Your task to perform on an android device: Open maps Image 0: 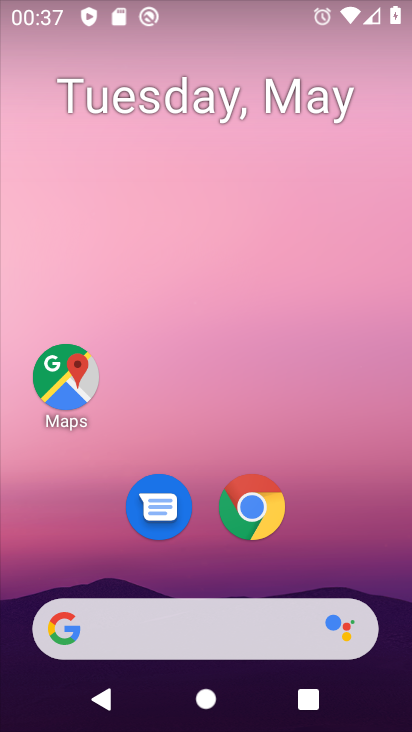
Step 0: drag from (216, 600) to (375, 15)
Your task to perform on an android device: Open maps Image 1: 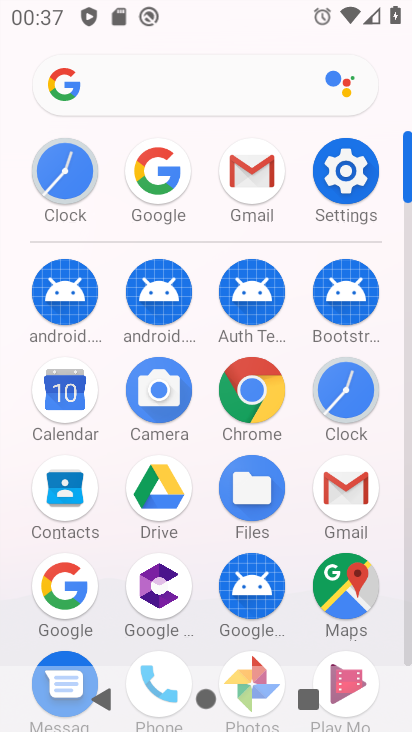
Step 1: click (352, 591)
Your task to perform on an android device: Open maps Image 2: 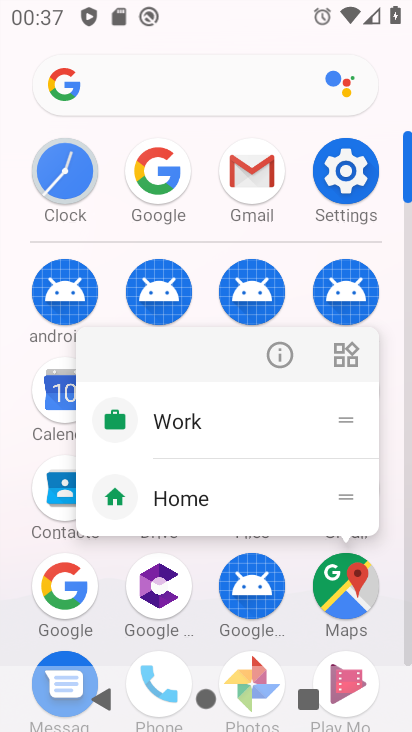
Step 2: click (352, 591)
Your task to perform on an android device: Open maps Image 3: 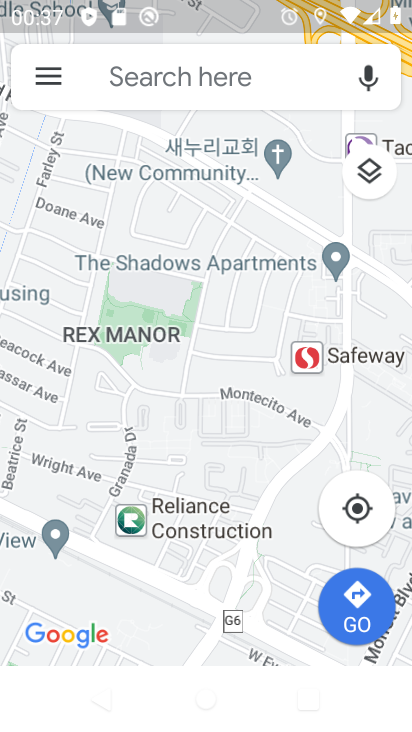
Step 3: task complete